Your task to perform on an android device: change notification settings in the gmail app Image 0: 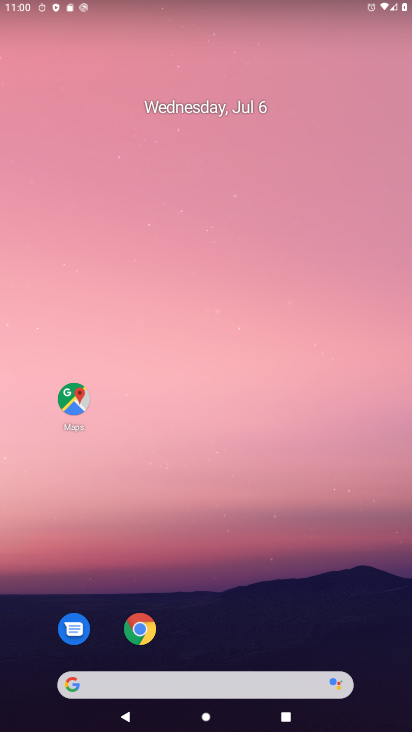
Step 0: drag from (210, 622) to (188, 49)
Your task to perform on an android device: change notification settings in the gmail app Image 1: 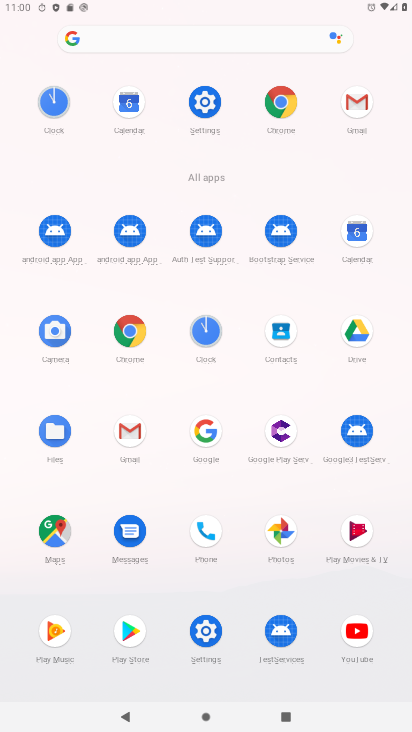
Step 1: click (124, 436)
Your task to perform on an android device: change notification settings in the gmail app Image 2: 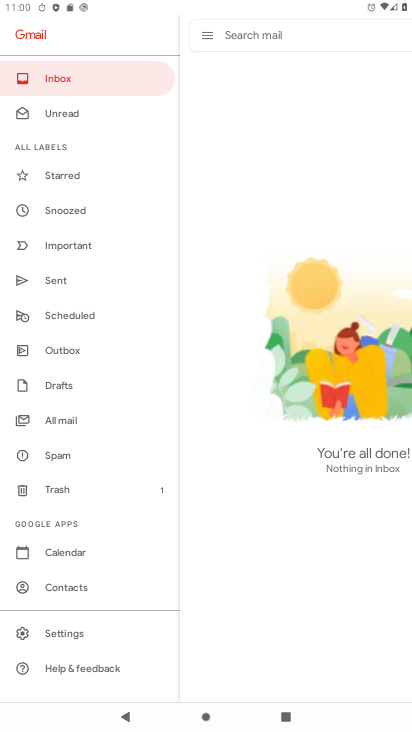
Step 2: click (71, 635)
Your task to perform on an android device: change notification settings in the gmail app Image 3: 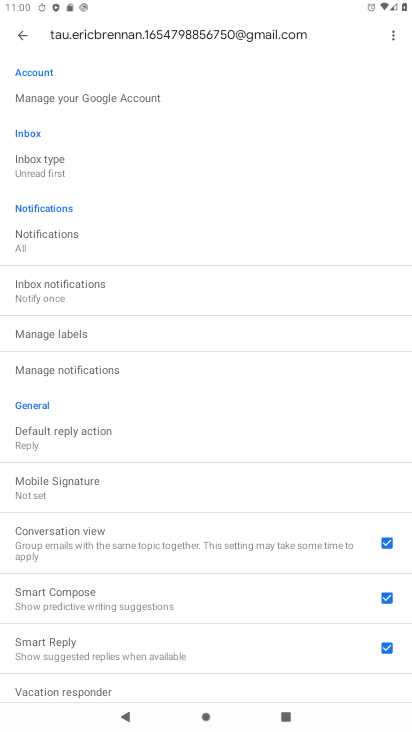
Step 3: click (26, 246)
Your task to perform on an android device: change notification settings in the gmail app Image 4: 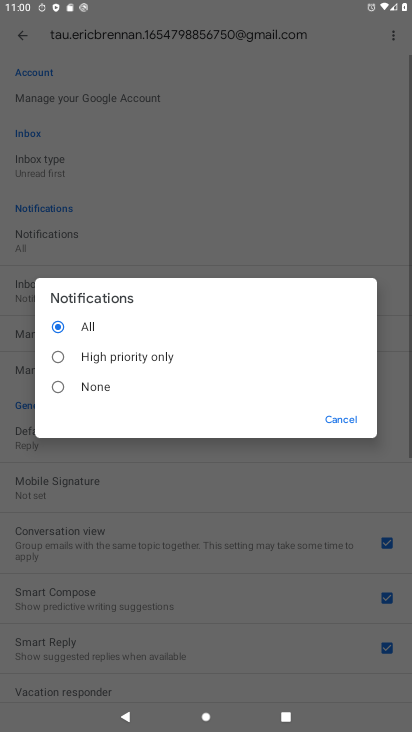
Step 4: click (82, 397)
Your task to perform on an android device: change notification settings in the gmail app Image 5: 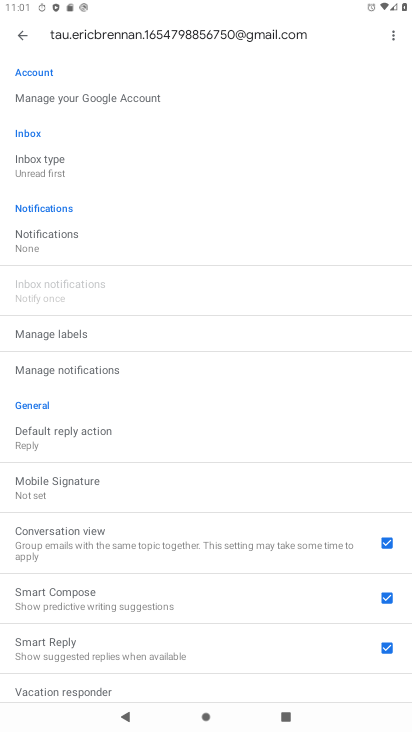
Step 5: task complete